Your task to perform on an android device: Look up the best rated coffee table on Ikea Image 0: 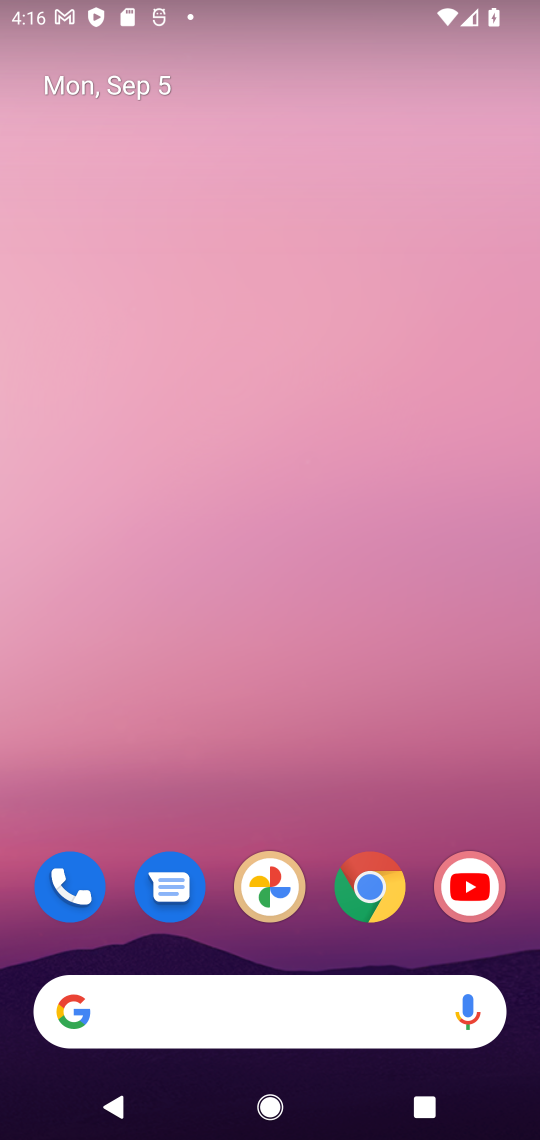
Step 0: drag from (331, 793) to (265, 1)
Your task to perform on an android device: Look up the best rated coffee table on Ikea Image 1: 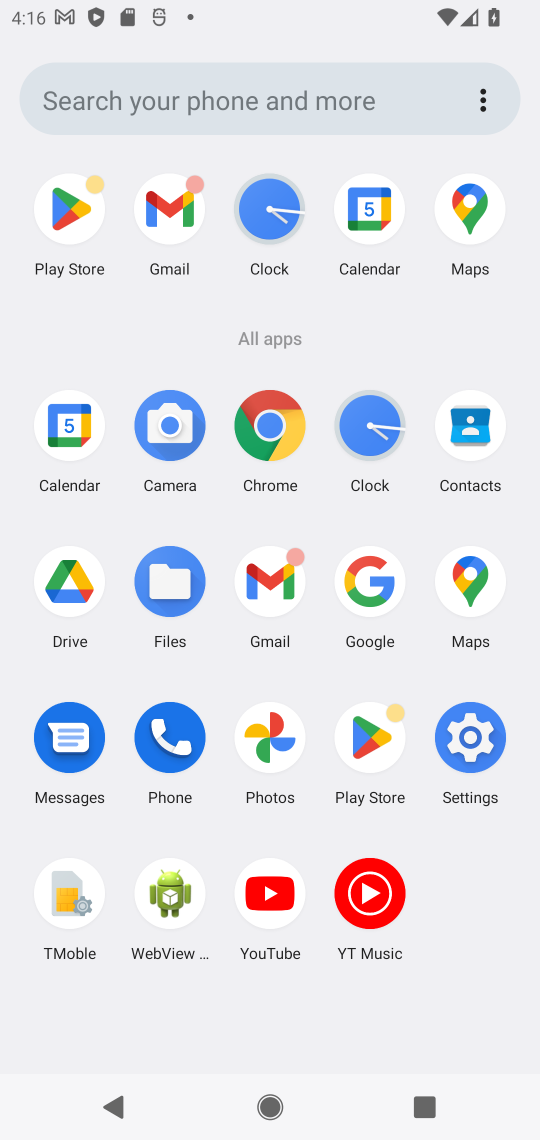
Step 1: click (286, 419)
Your task to perform on an android device: Look up the best rated coffee table on Ikea Image 2: 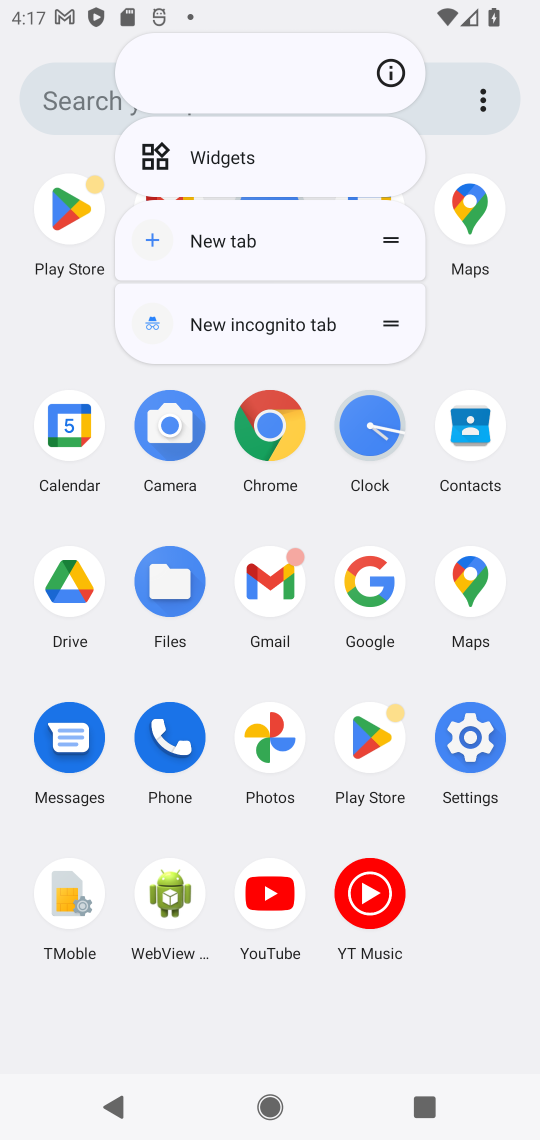
Step 2: click (270, 433)
Your task to perform on an android device: Look up the best rated coffee table on Ikea Image 3: 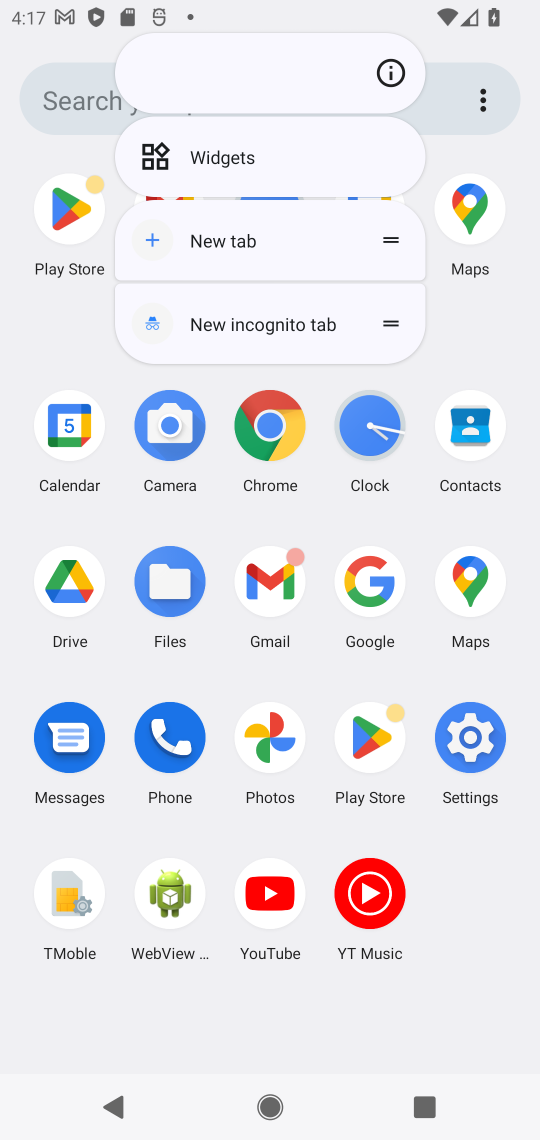
Step 3: click (270, 433)
Your task to perform on an android device: Look up the best rated coffee table on Ikea Image 4: 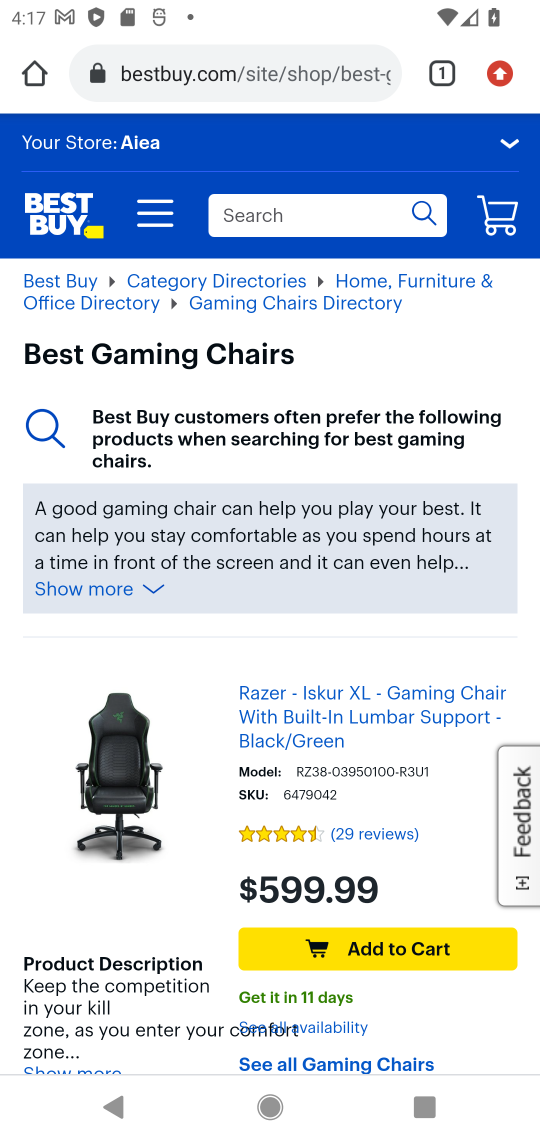
Step 4: click (188, 71)
Your task to perform on an android device: Look up the best rated coffee table on Ikea Image 5: 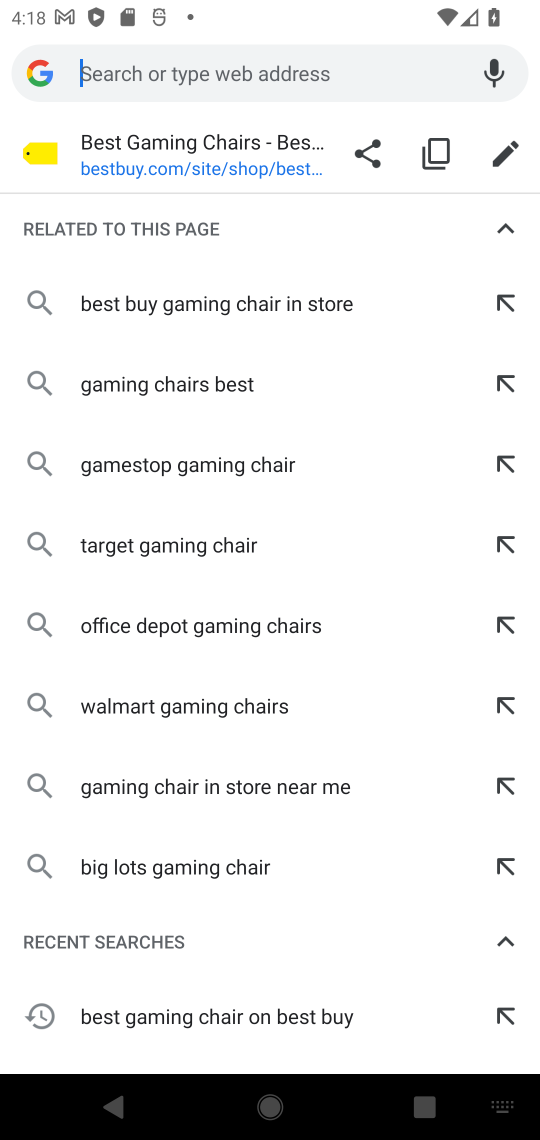
Step 5: type "best rated coffee table on lkkea"
Your task to perform on an android device: Look up the best rated coffee table on Ikea Image 6: 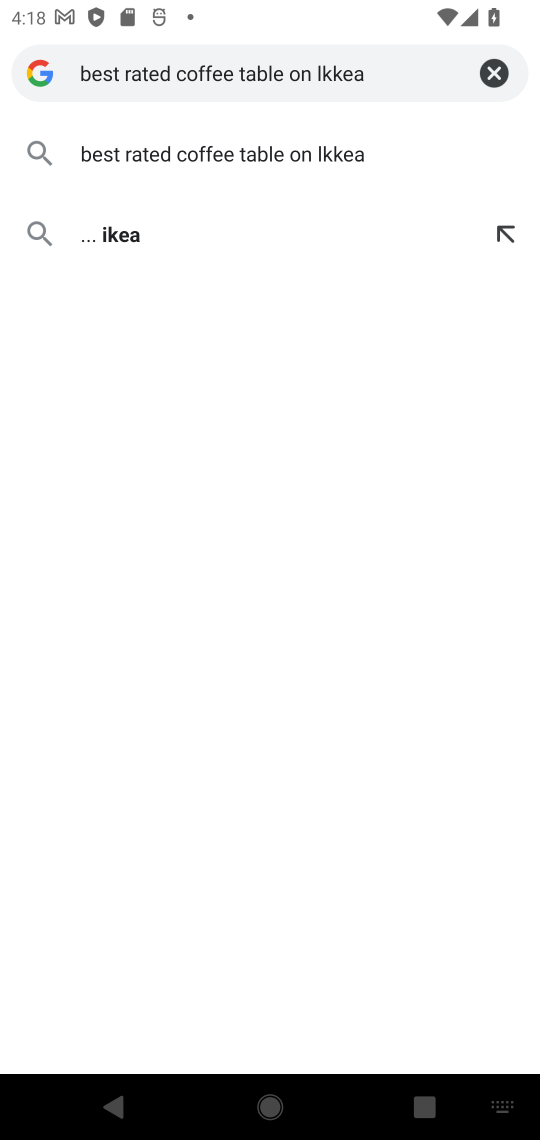
Step 6: press enter
Your task to perform on an android device: Look up the best rated coffee table on Ikea Image 7: 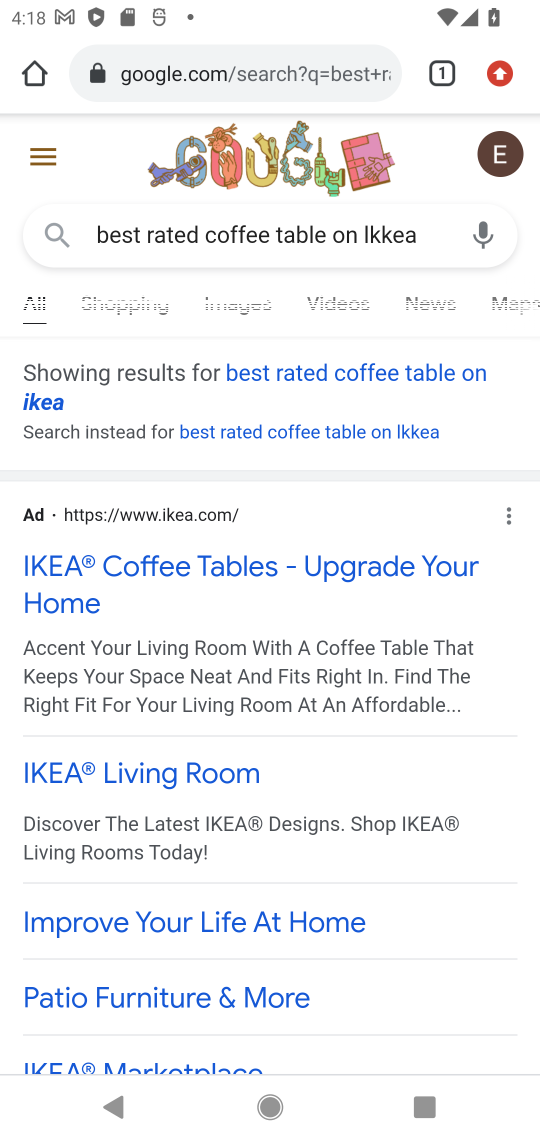
Step 7: drag from (296, 606) to (316, 102)
Your task to perform on an android device: Look up the best rated coffee table on Ikea Image 8: 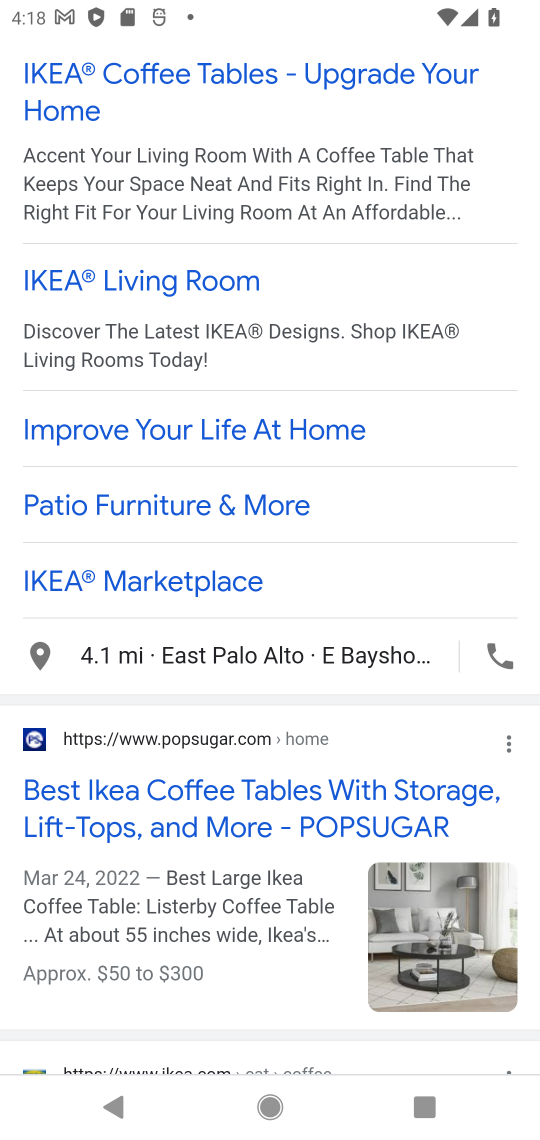
Step 8: drag from (323, 624) to (331, 234)
Your task to perform on an android device: Look up the best rated coffee table on Ikea Image 9: 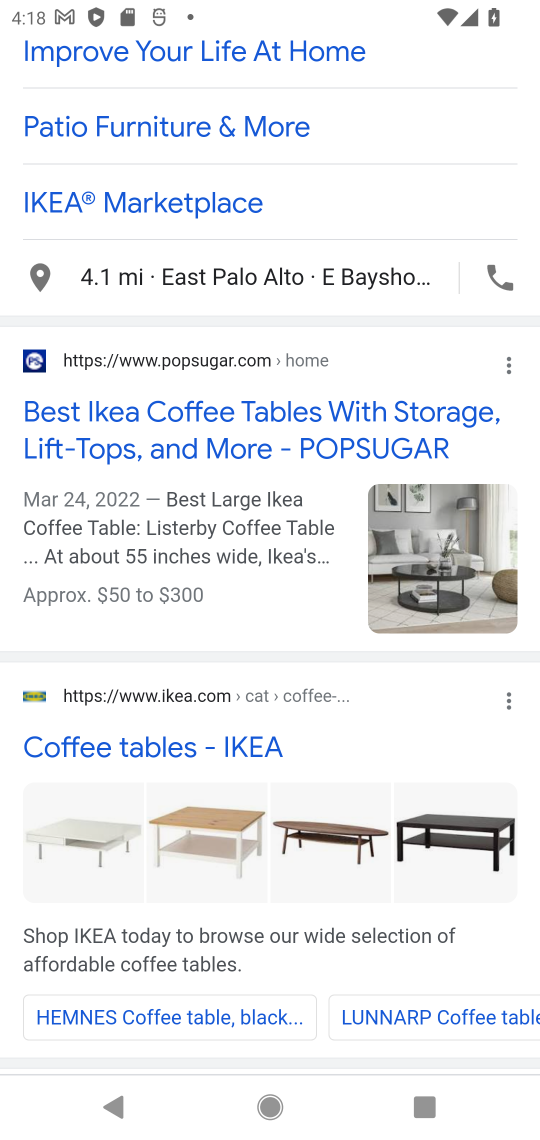
Step 9: click (150, 756)
Your task to perform on an android device: Look up the best rated coffee table on Ikea Image 10: 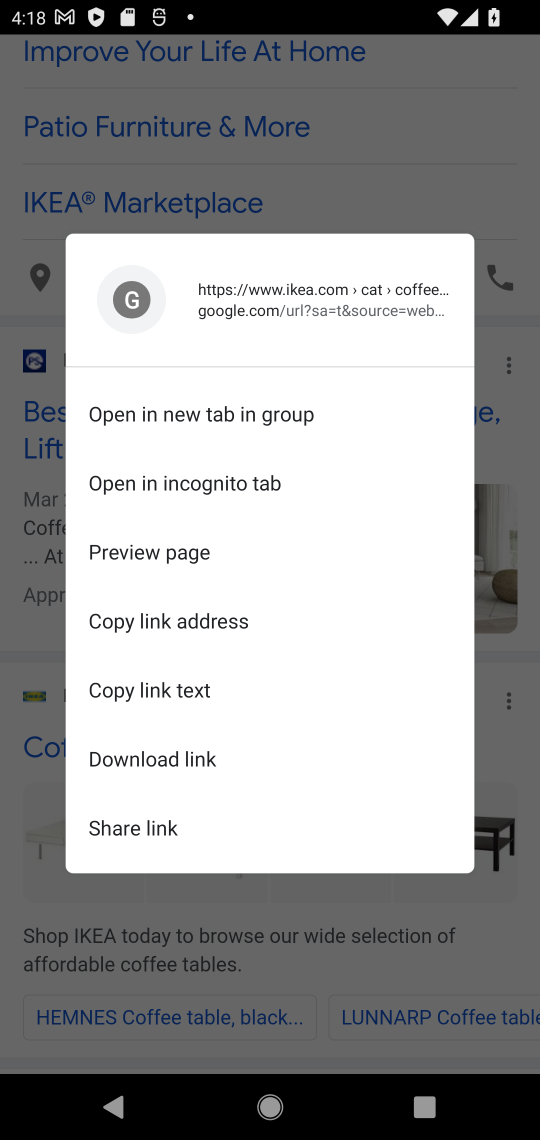
Step 10: click (34, 751)
Your task to perform on an android device: Look up the best rated coffee table on Ikea Image 11: 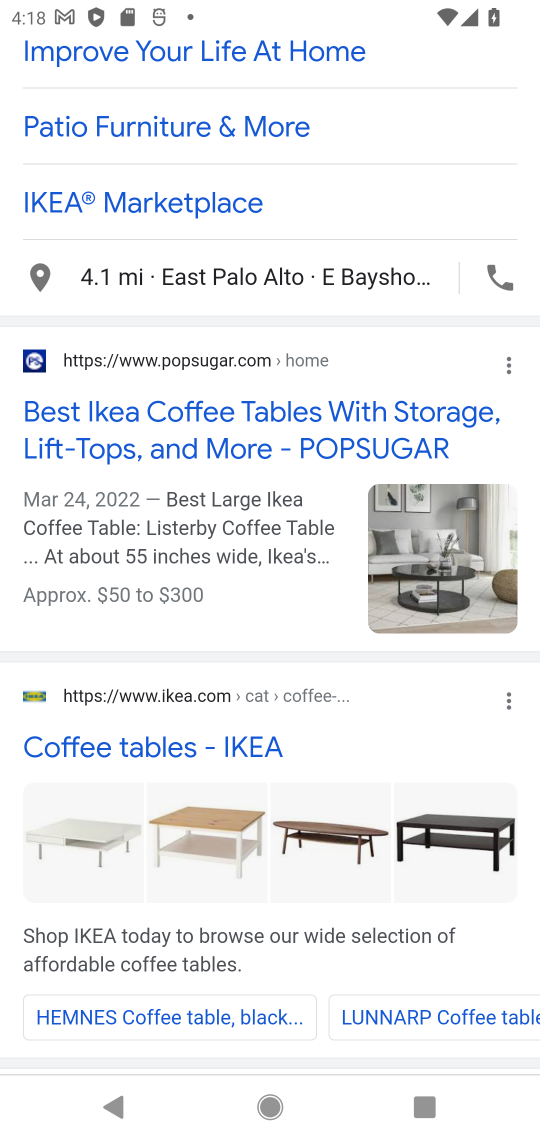
Step 11: click (89, 738)
Your task to perform on an android device: Look up the best rated coffee table on Ikea Image 12: 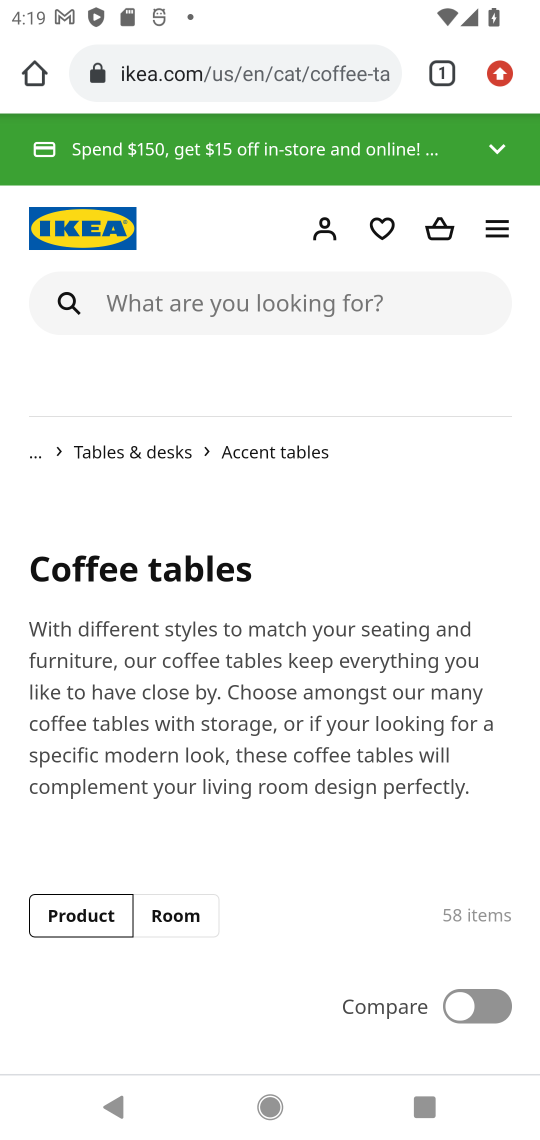
Step 12: drag from (272, 768) to (291, 624)
Your task to perform on an android device: Look up the best rated coffee table on Ikea Image 13: 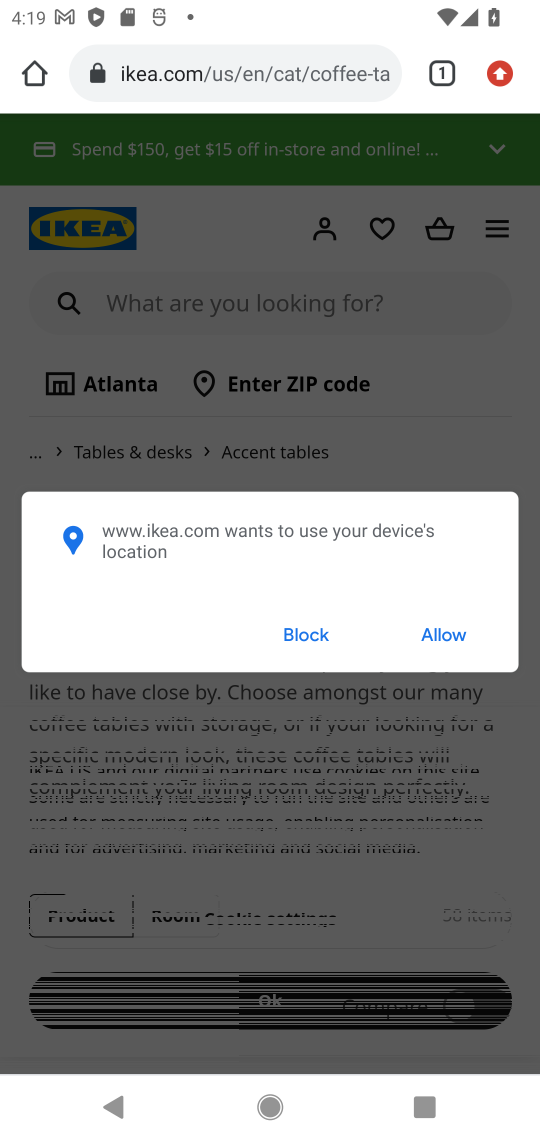
Step 13: click (306, 636)
Your task to perform on an android device: Look up the best rated coffee table on Ikea Image 14: 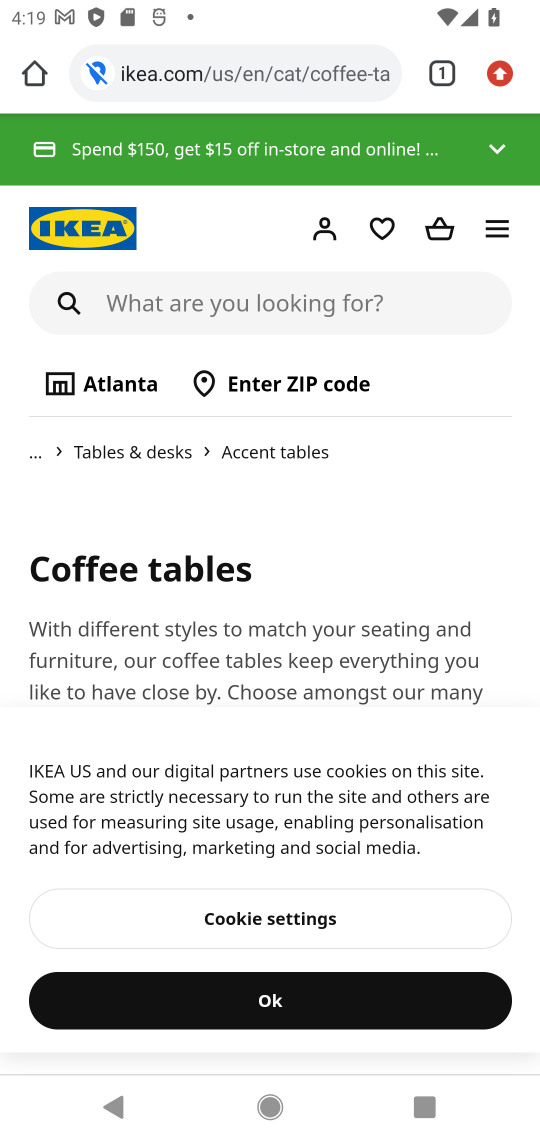
Step 14: click (258, 156)
Your task to perform on an android device: Look up the best rated coffee table on Ikea Image 15: 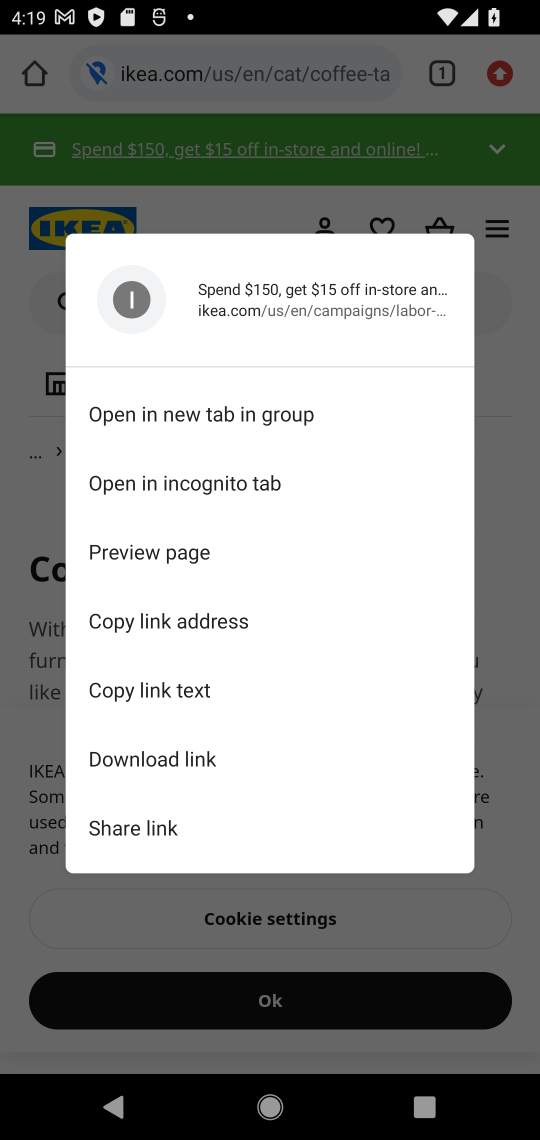
Step 15: click (208, 930)
Your task to perform on an android device: Look up the best rated coffee table on Ikea Image 16: 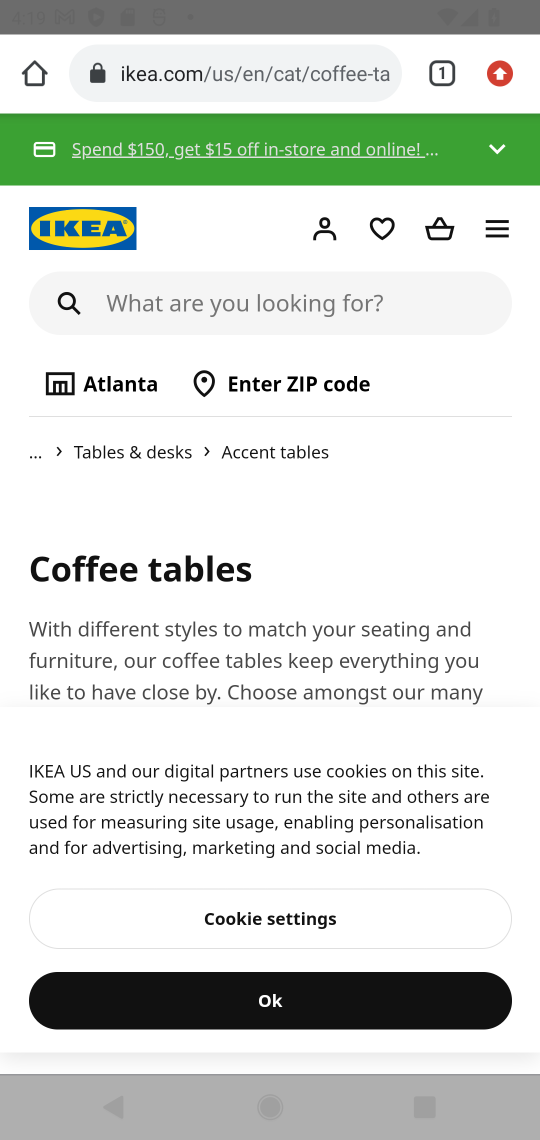
Step 16: task complete